Your task to perform on an android device: Go to Reddit.com Image 0: 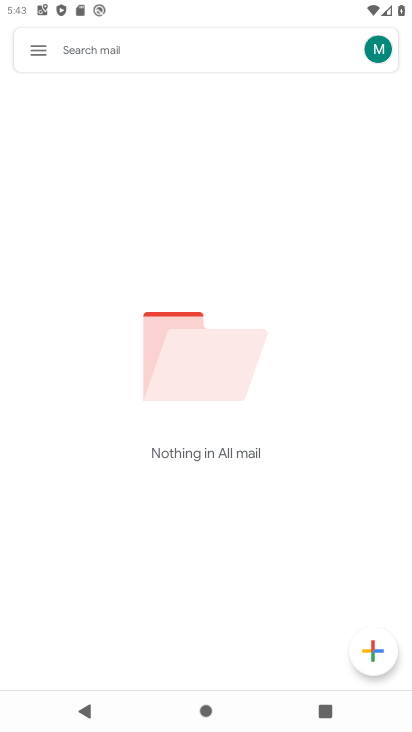
Step 0: press home button
Your task to perform on an android device: Go to Reddit.com Image 1: 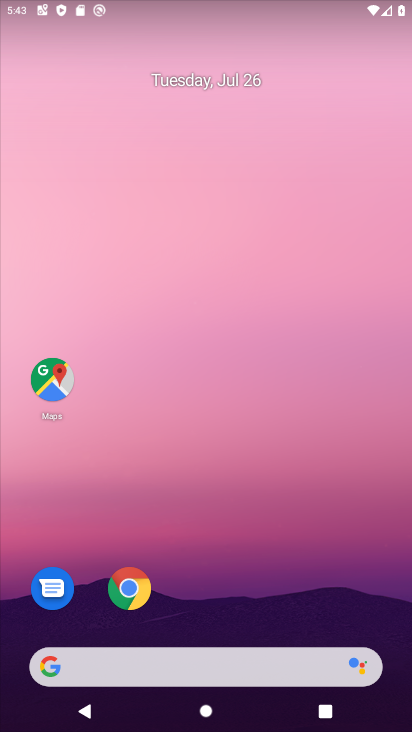
Step 1: drag from (198, 652) to (322, 97)
Your task to perform on an android device: Go to Reddit.com Image 2: 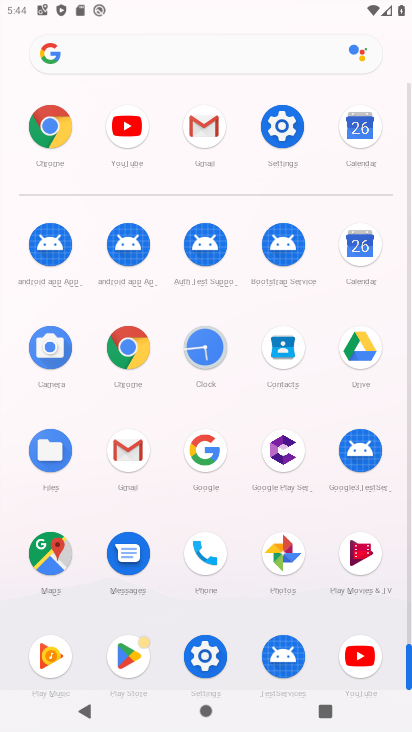
Step 2: click (69, 143)
Your task to perform on an android device: Go to Reddit.com Image 3: 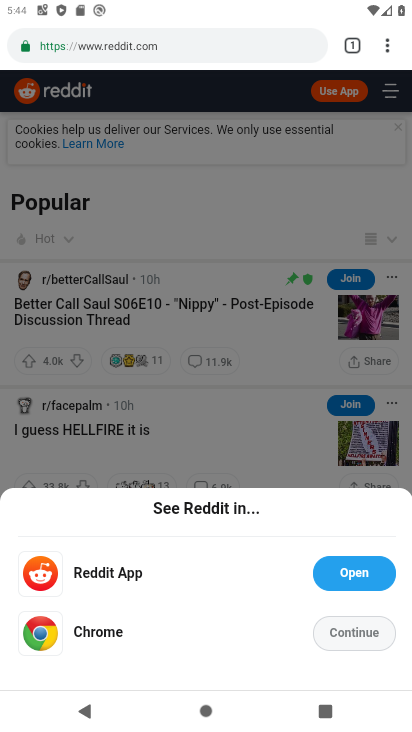
Step 3: task complete